Your task to perform on an android device: Open my contact list Image 0: 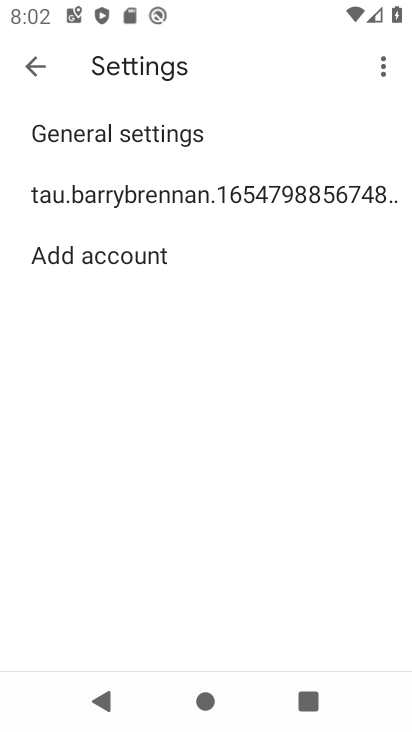
Step 0: press home button
Your task to perform on an android device: Open my contact list Image 1: 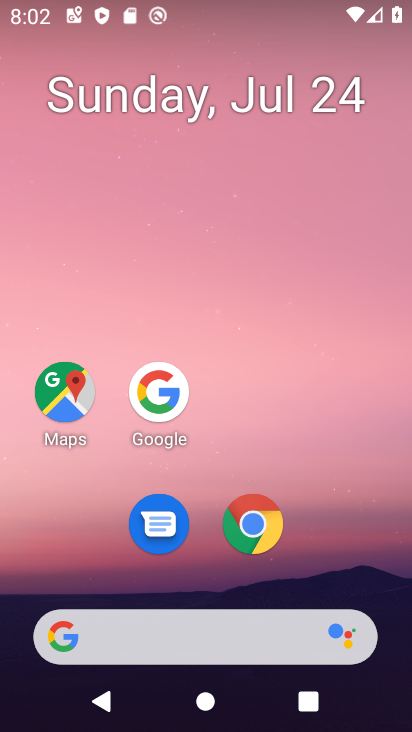
Step 1: drag from (213, 616) to (345, 34)
Your task to perform on an android device: Open my contact list Image 2: 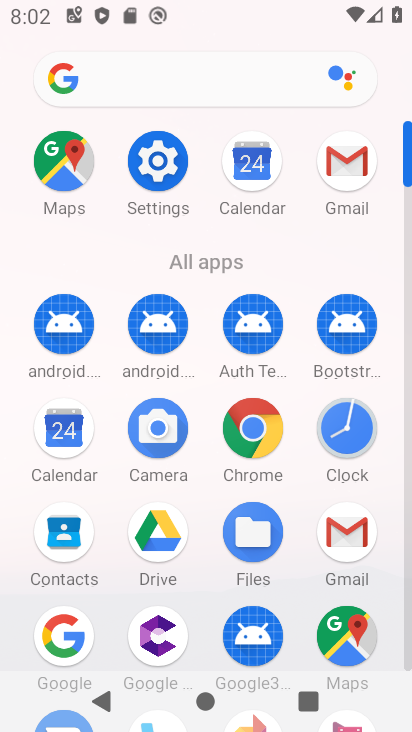
Step 2: click (67, 538)
Your task to perform on an android device: Open my contact list Image 3: 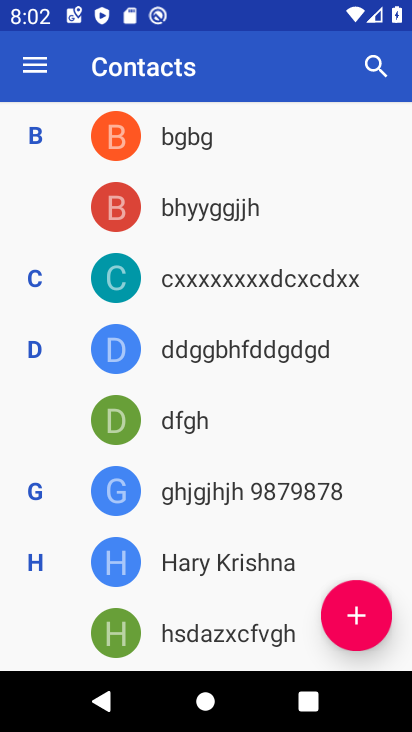
Step 3: task complete